Your task to perform on an android device: Open sound settings Image 0: 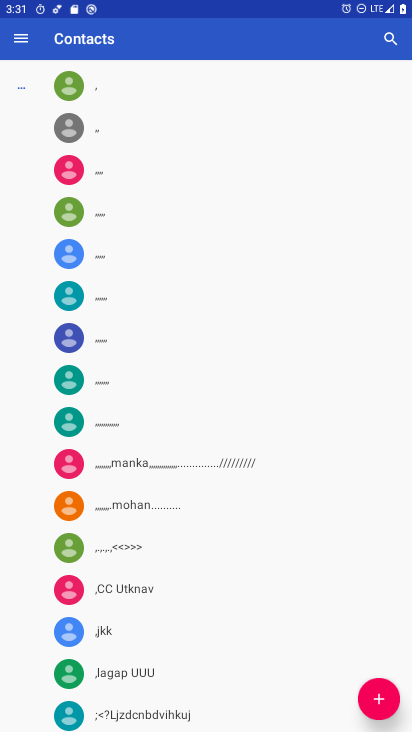
Step 0: click (129, 644)
Your task to perform on an android device: Open sound settings Image 1: 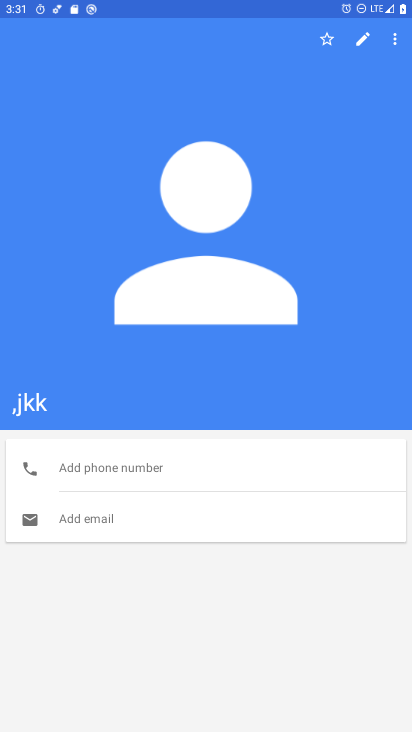
Step 1: press home button
Your task to perform on an android device: Open sound settings Image 2: 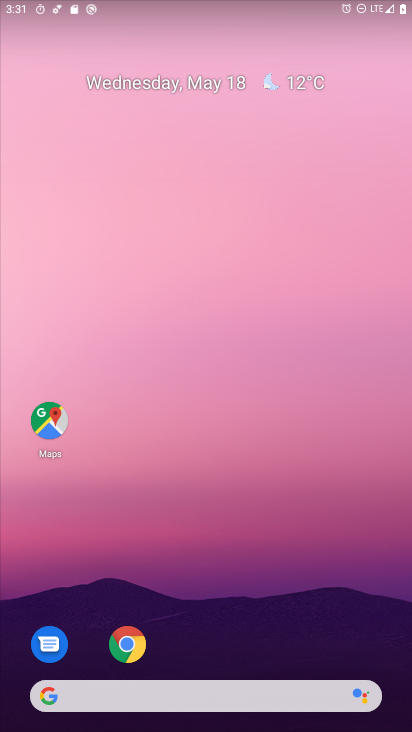
Step 2: drag from (380, 653) to (411, 218)
Your task to perform on an android device: Open sound settings Image 3: 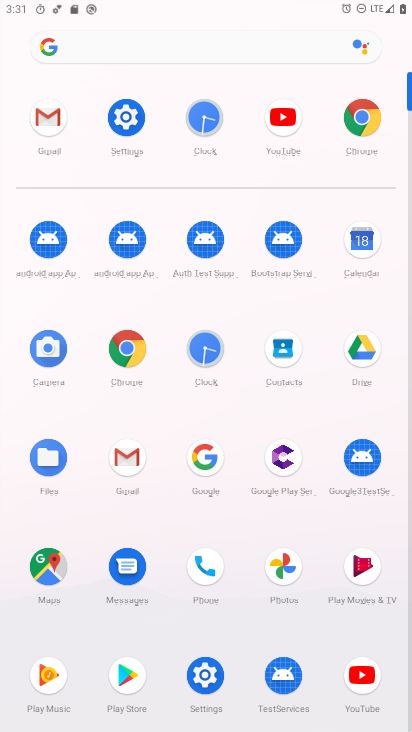
Step 3: click (205, 670)
Your task to perform on an android device: Open sound settings Image 4: 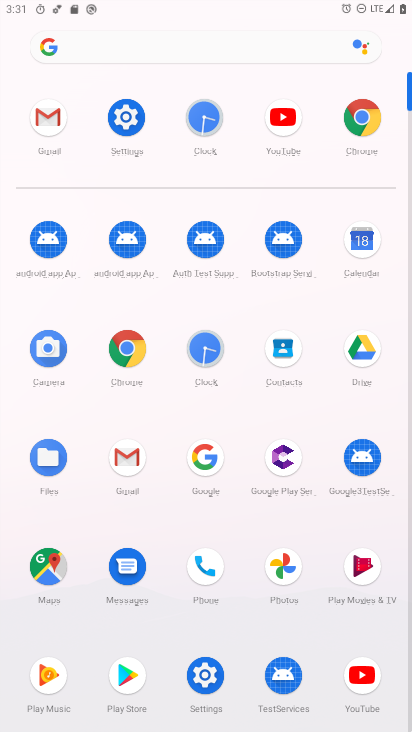
Step 4: click (206, 678)
Your task to perform on an android device: Open sound settings Image 5: 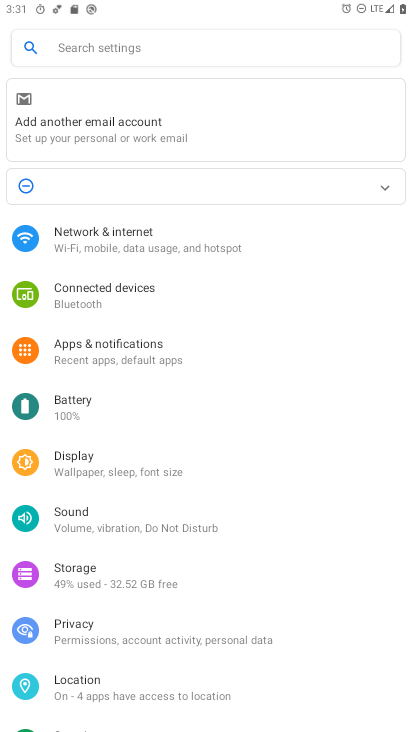
Step 5: click (53, 517)
Your task to perform on an android device: Open sound settings Image 6: 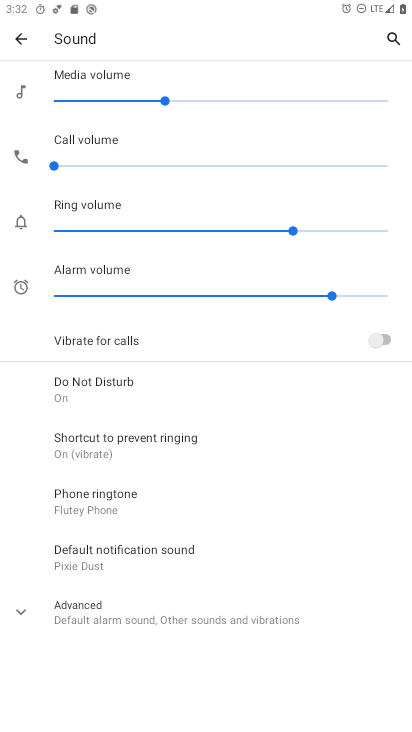
Step 6: task complete